Your task to perform on an android device: check android version Image 0: 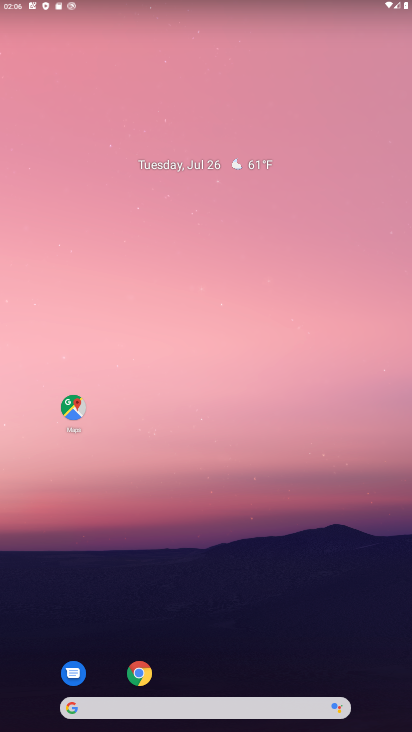
Step 0: drag from (194, 731) to (200, 141)
Your task to perform on an android device: check android version Image 1: 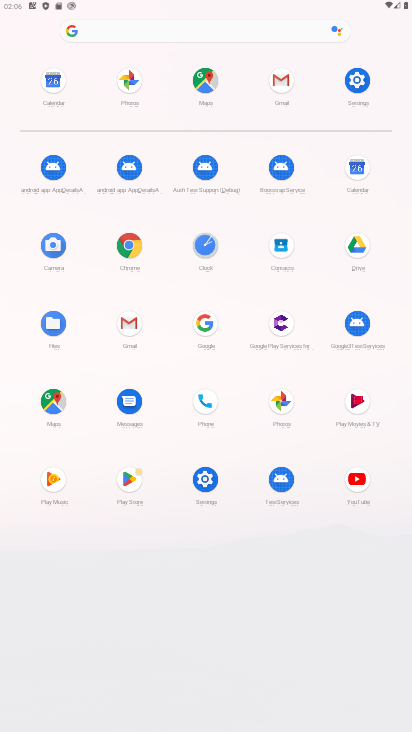
Step 1: click (359, 78)
Your task to perform on an android device: check android version Image 2: 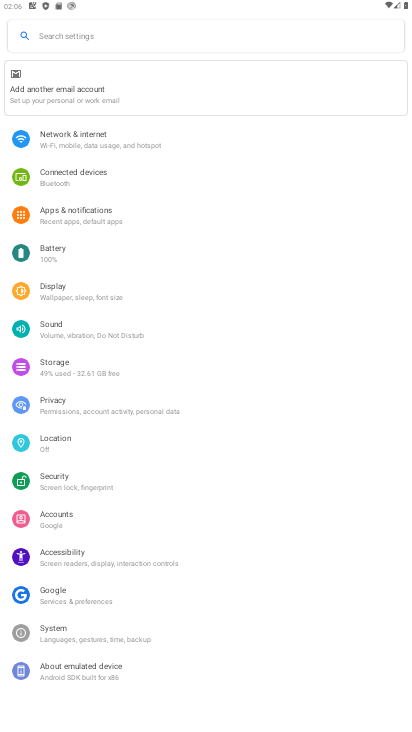
Step 2: drag from (97, 672) to (97, 290)
Your task to perform on an android device: check android version Image 3: 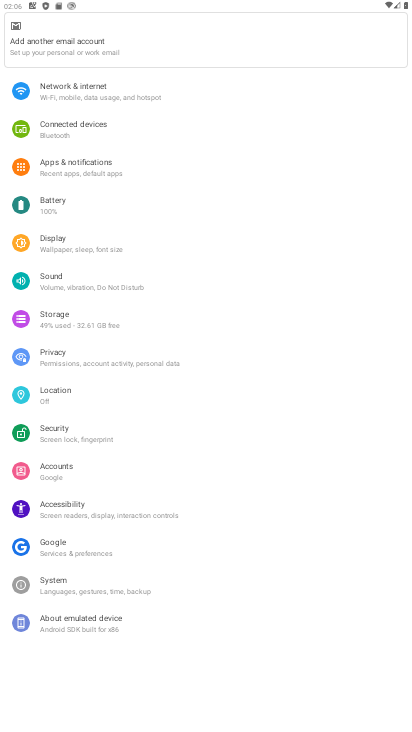
Step 3: click (93, 619)
Your task to perform on an android device: check android version Image 4: 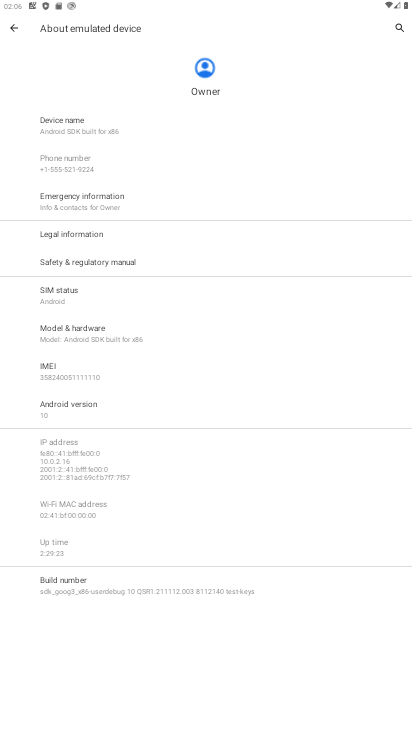
Step 4: click (79, 404)
Your task to perform on an android device: check android version Image 5: 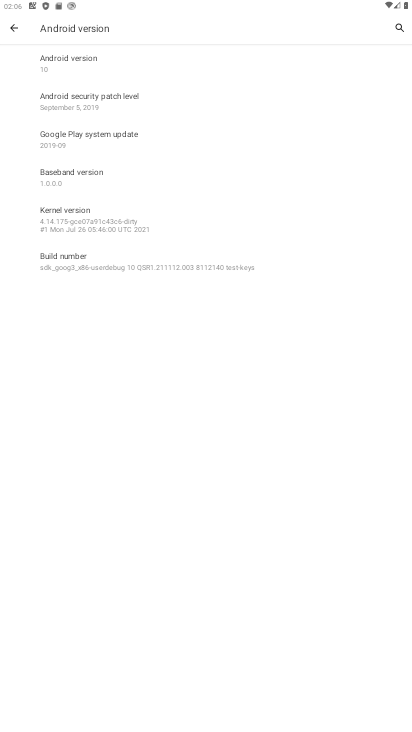
Step 5: task complete